Your task to perform on an android device: turn on sleep mode Image 0: 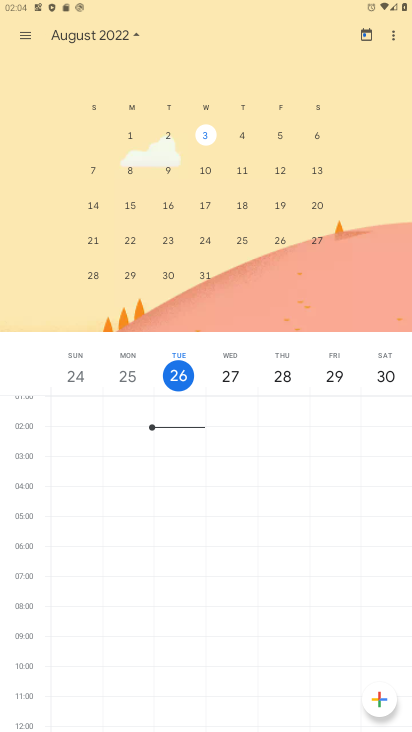
Step 0: press home button
Your task to perform on an android device: turn on sleep mode Image 1: 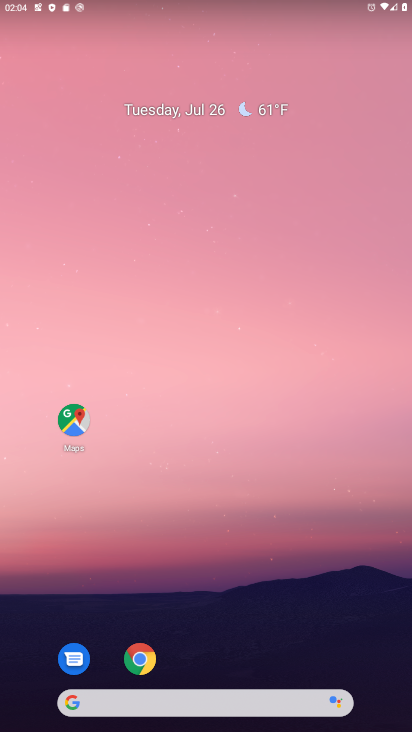
Step 1: drag from (280, 628) to (192, 143)
Your task to perform on an android device: turn on sleep mode Image 2: 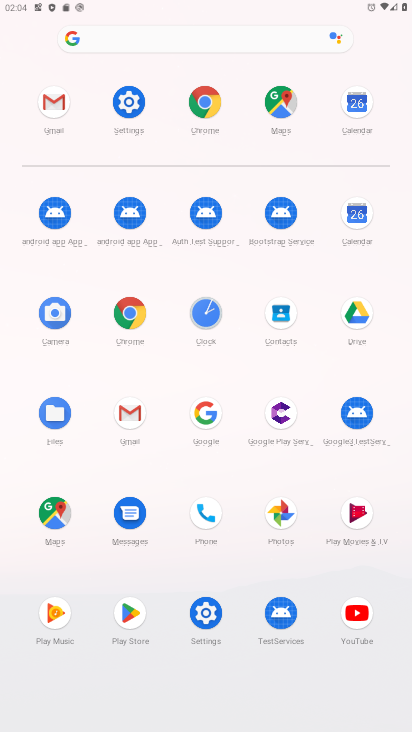
Step 2: click (129, 105)
Your task to perform on an android device: turn on sleep mode Image 3: 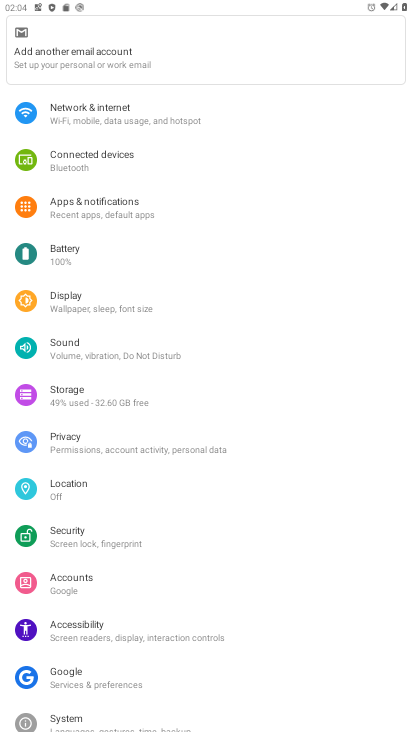
Step 3: click (93, 304)
Your task to perform on an android device: turn on sleep mode Image 4: 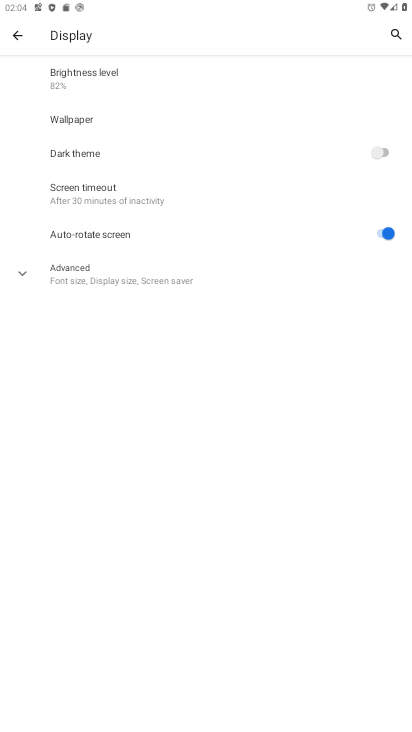
Step 4: click (99, 199)
Your task to perform on an android device: turn on sleep mode Image 5: 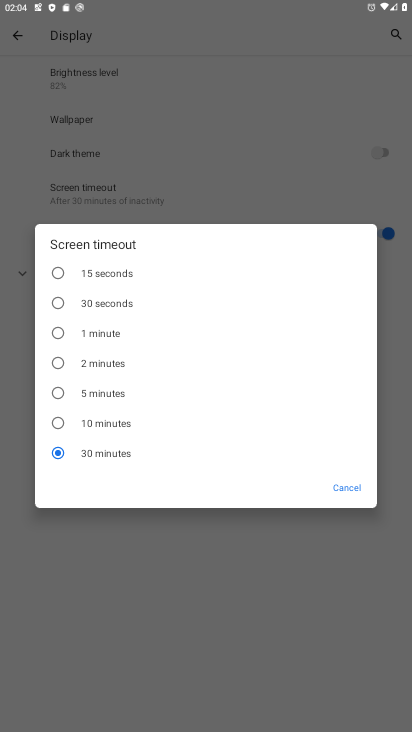
Step 5: task complete